Your task to perform on an android device: Do I have any events this weekend? Image 0: 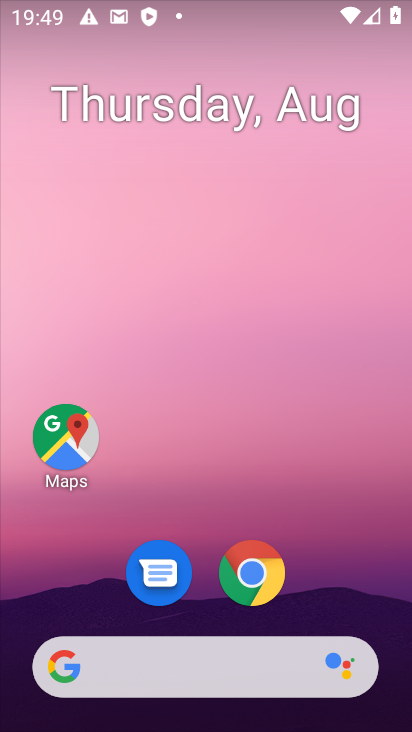
Step 0: drag from (237, 654) to (203, 61)
Your task to perform on an android device: Do I have any events this weekend? Image 1: 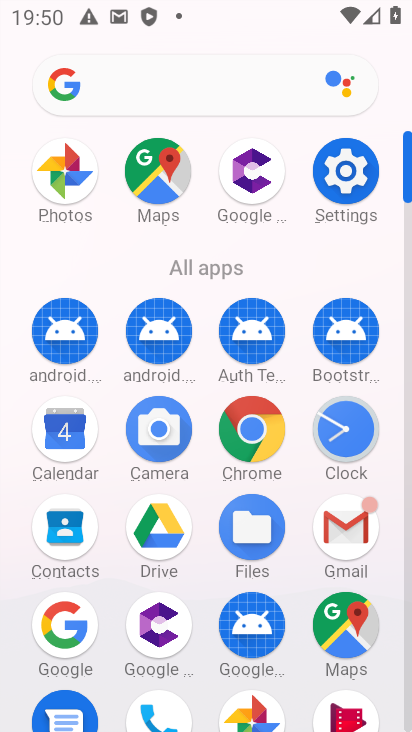
Step 1: click (69, 417)
Your task to perform on an android device: Do I have any events this weekend? Image 2: 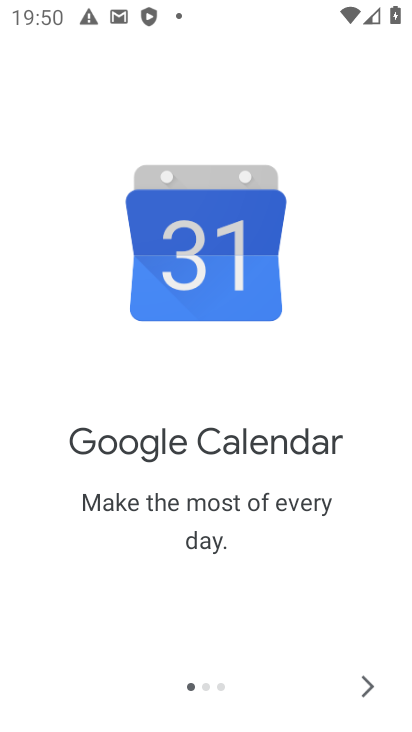
Step 2: click (376, 681)
Your task to perform on an android device: Do I have any events this weekend? Image 3: 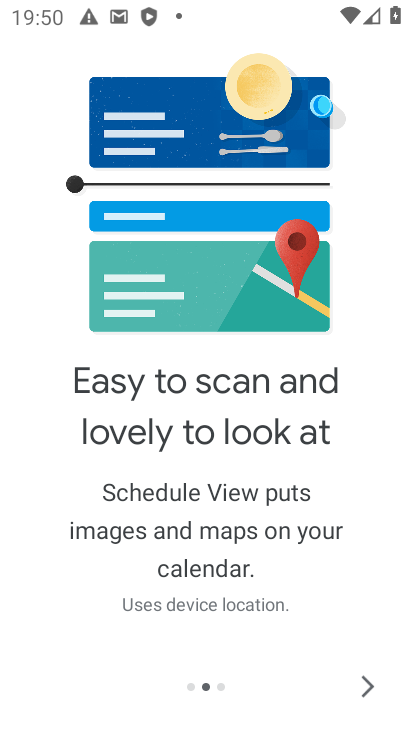
Step 3: click (370, 678)
Your task to perform on an android device: Do I have any events this weekend? Image 4: 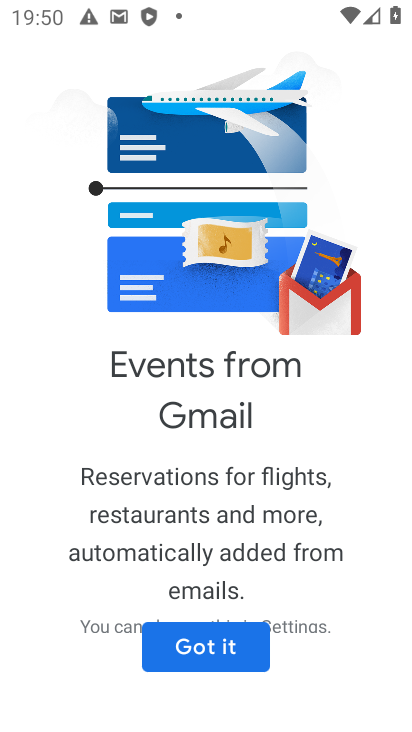
Step 4: click (294, 655)
Your task to perform on an android device: Do I have any events this weekend? Image 5: 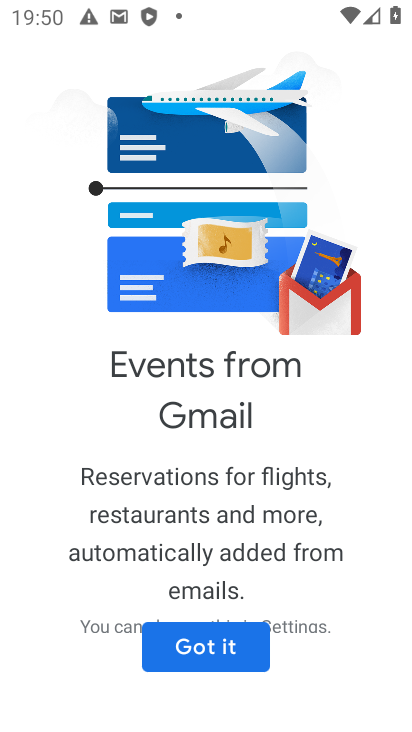
Step 5: click (235, 646)
Your task to perform on an android device: Do I have any events this weekend? Image 6: 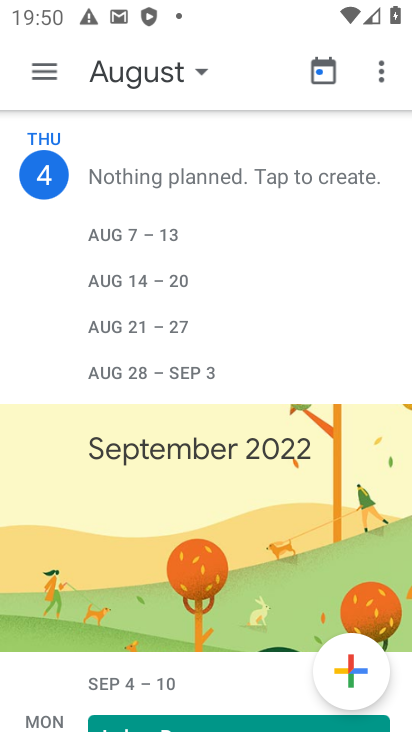
Step 6: click (40, 95)
Your task to perform on an android device: Do I have any events this weekend? Image 7: 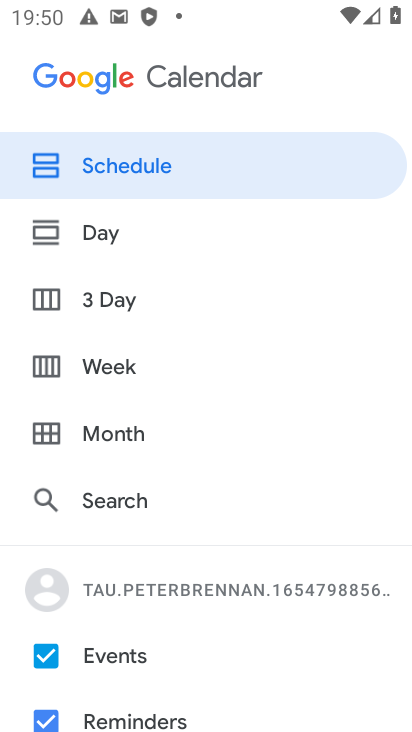
Step 7: click (106, 372)
Your task to perform on an android device: Do I have any events this weekend? Image 8: 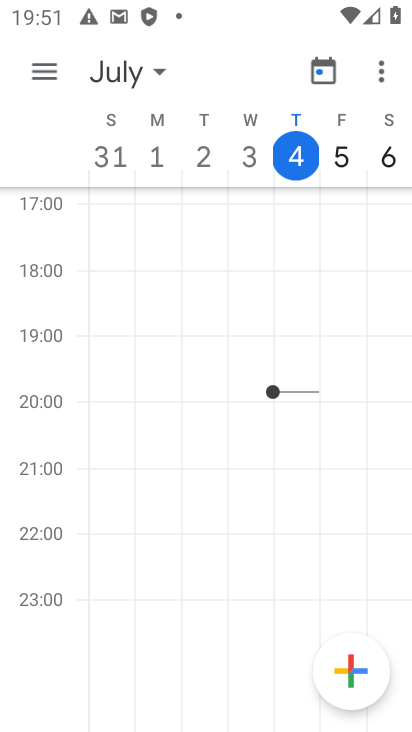
Step 8: task complete